Your task to perform on an android device: See recent photos Image 0: 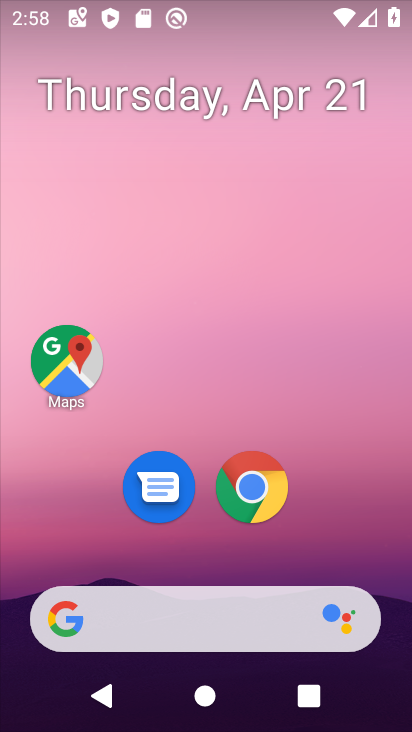
Step 0: drag from (279, 162) to (307, 17)
Your task to perform on an android device: See recent photos Image 1: 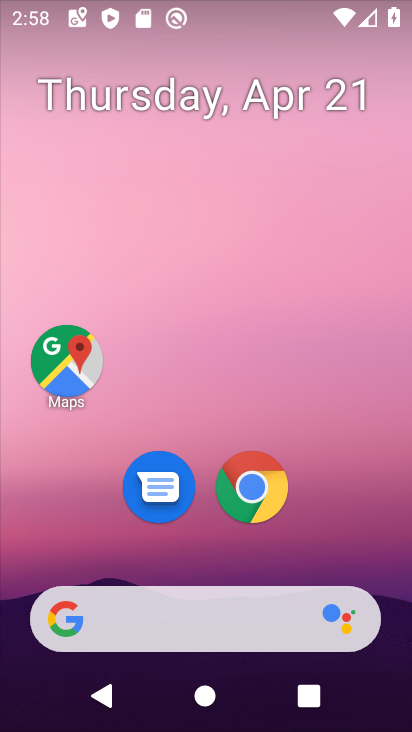
Step 1: drag from (218, 494) to (283, 14)
Your task to perform on an android device: See recent photos Image 2: 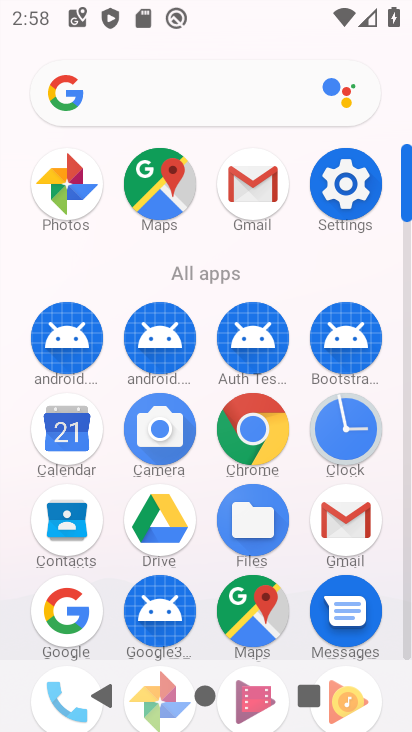
Step 2: drag from (200, 545) to (345, 55)
Your task to perform on an android device: See recent photos Image 3: 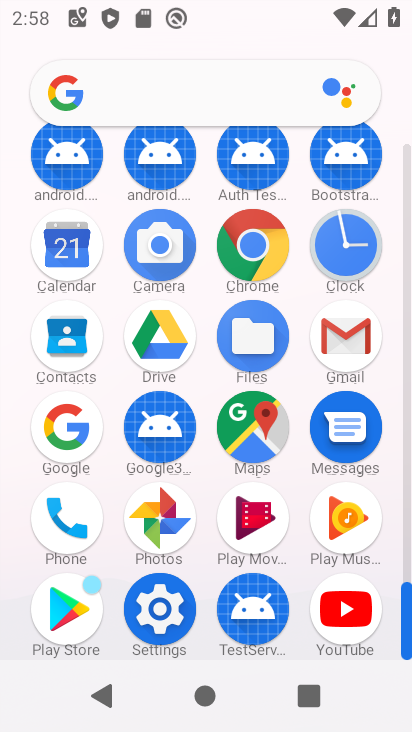
Step 3: click (154, 533)
Your task to perform on an android device: See recent photos Image 4: 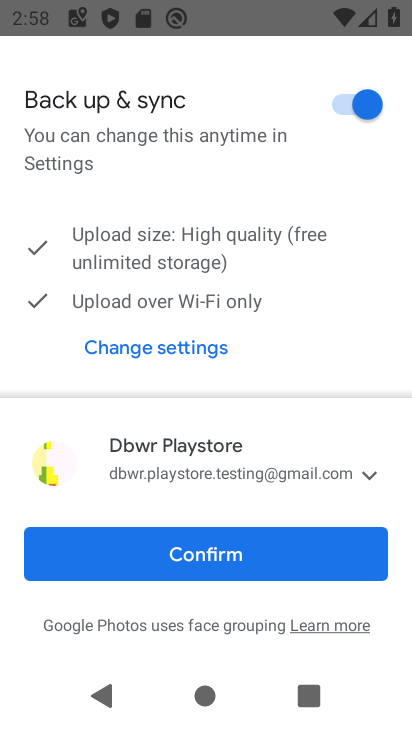
Step 4: click (174, 554)
Your task to perform on an android device: See recent photos Image 5: 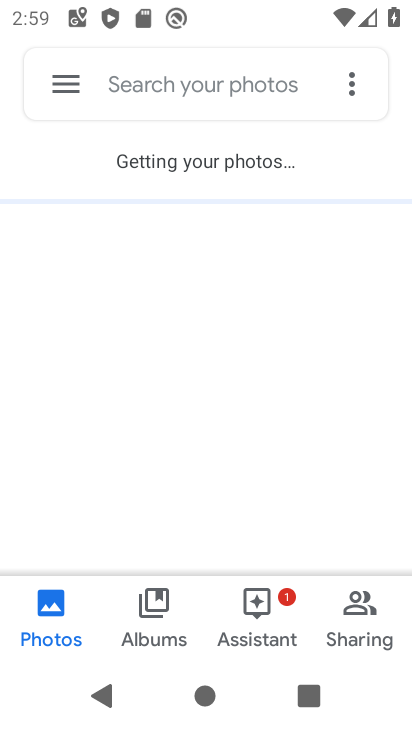
Step 5: click (57, 611)
Your task to perform on an android device: See recent photos Image 6: 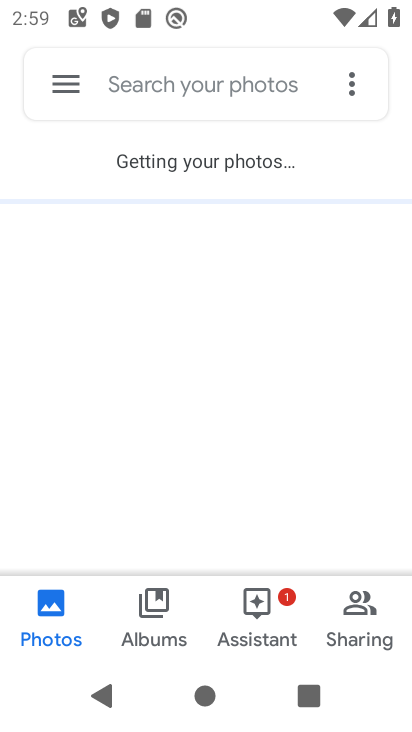
Step 6: task complete